Your task to perform on an android device: Is it going to rain this weekend? Image 0: 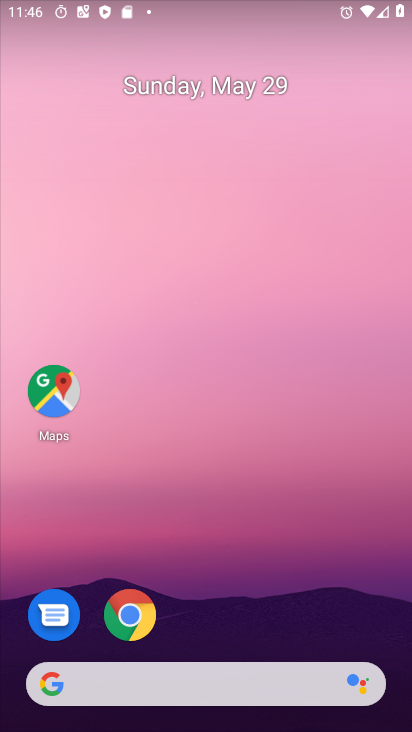
Step 0: drag from (244, 588) to (196, 217)
Your task to perform on an android device: Is it going to rain this weekend? Image 1: 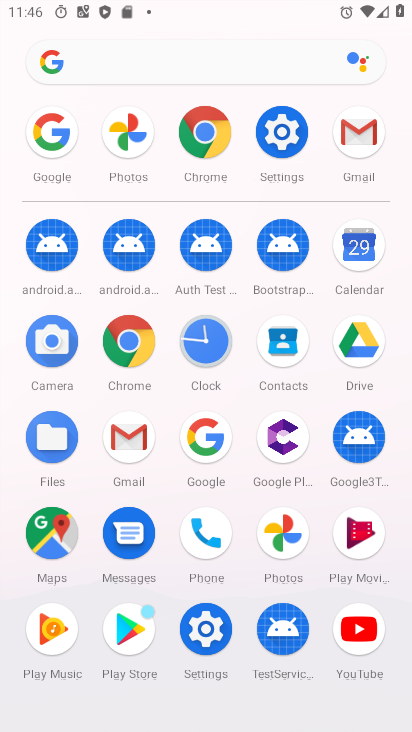
Step 1: click (200, 443)
Your task to perform on an android device: Is it going to rain this weekend? Image 2: 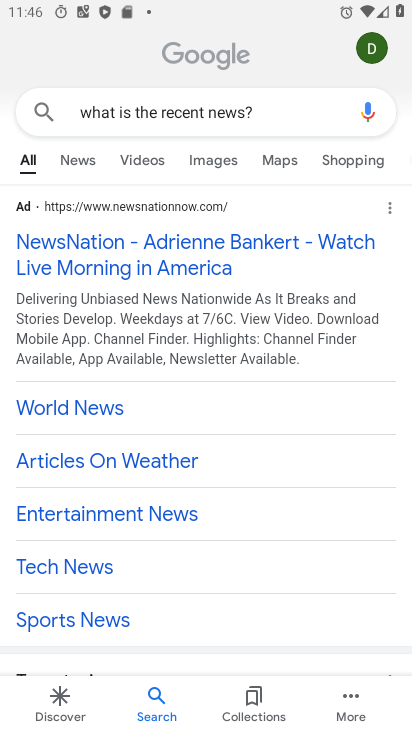
Step 2: click (277, 105)
Your task to perform on an android device: Is it going to rain this weekend? Image 3: 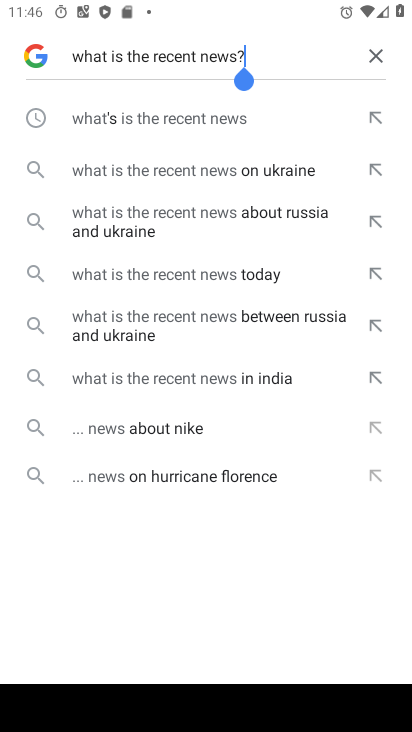
Step 3: click (366, 52)
Your task to perform on an android device: Is it going to rain this weekend? Image 4: 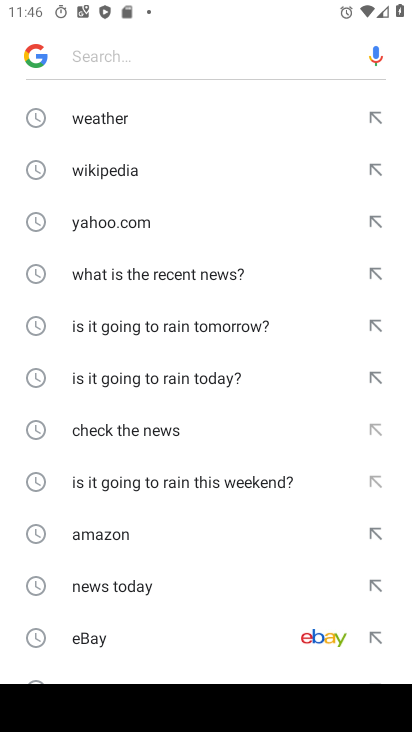
Step 4: drag from (194, 576) to (188, 499)
Your task to perform on an android device: Is it going to rain this weekend? Image 5: 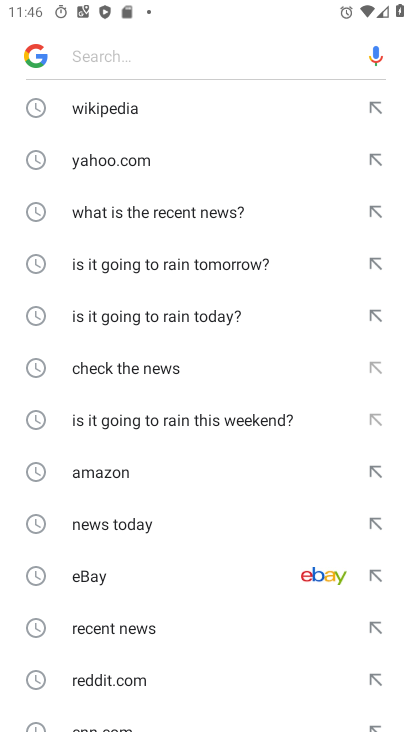
Step 5: click (179, 421)
Your task to perform on an android device: Is it going to rain this weekend? Image 6: 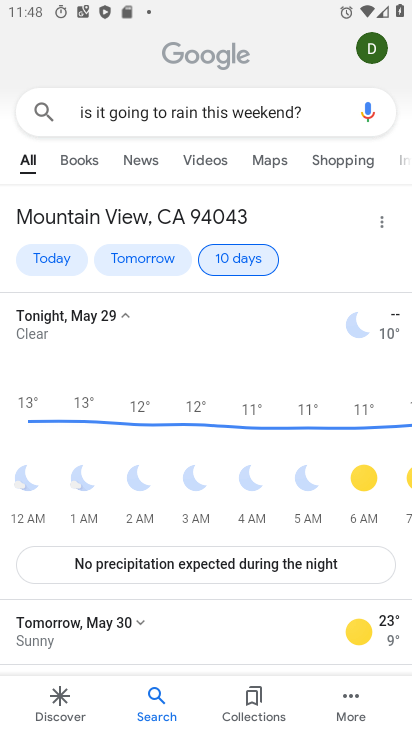
Step 6: task complete